Your task to perform on an android device: turn on airplane mode Image 0: 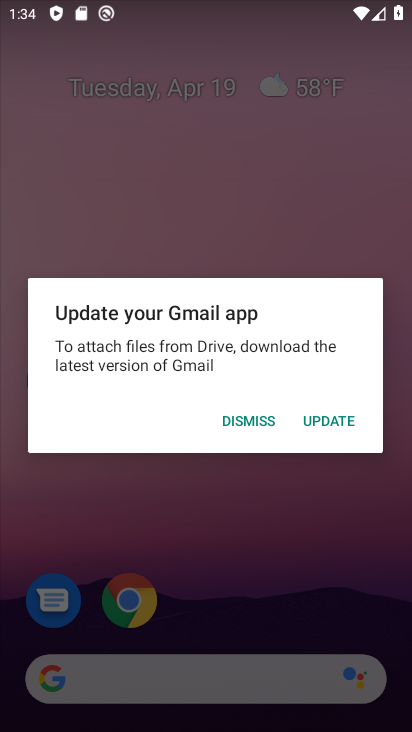
Step 0: press back button
Your task to perform on an android device: turn on airplane mode Image 1: 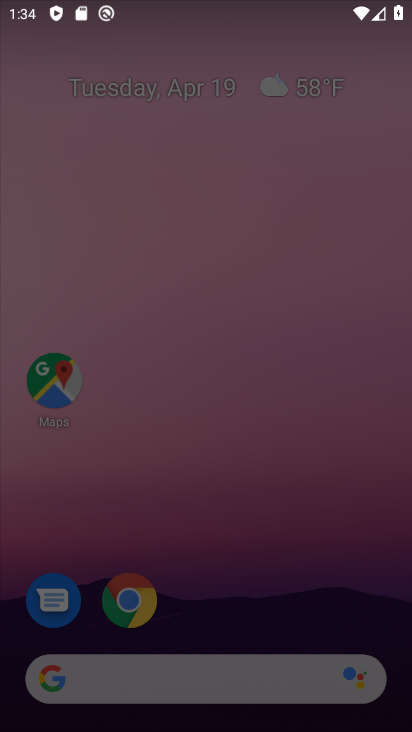
Step 1: press back button
Your task to perform on an android device: turn on airplane mode Image 2: 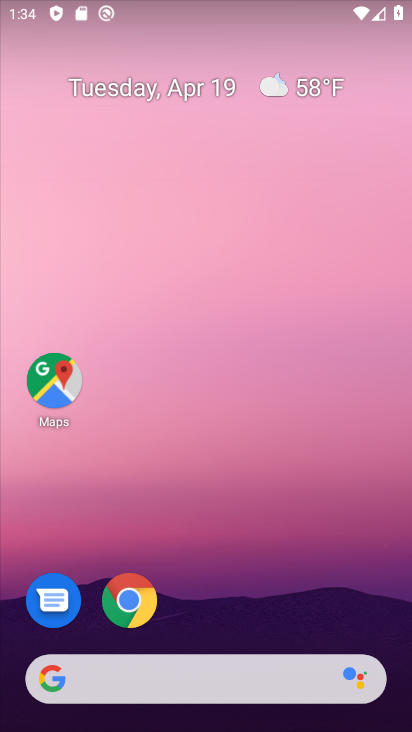
Step 2: drag from (265, 668) to (301, 138)
Your task to perform on an android device: turn on airplane mode Image 3: 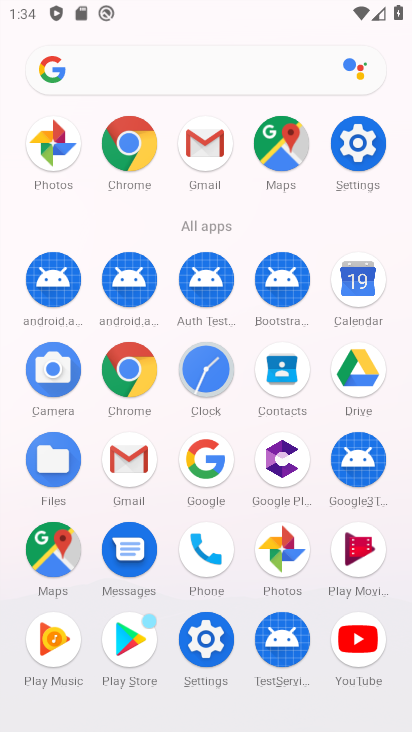
Step 3: click (364, 143)
Your task to perform on an android device: turn on airplane mode Image 4: 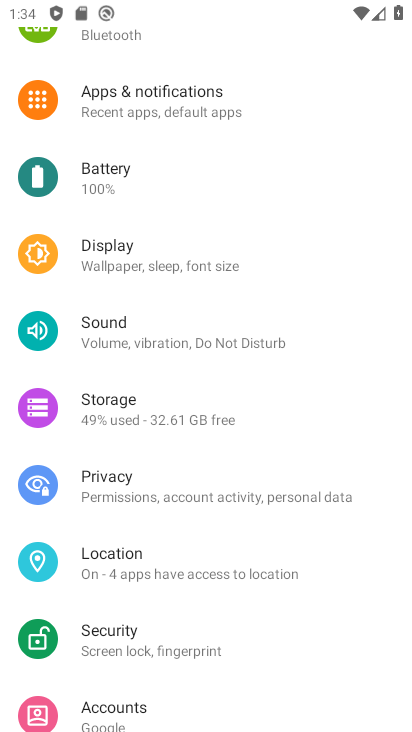
Step 4: drag from (195, 127) to (191, 433)
Your task to perform on an android device: turn on airplane mode Image 5: 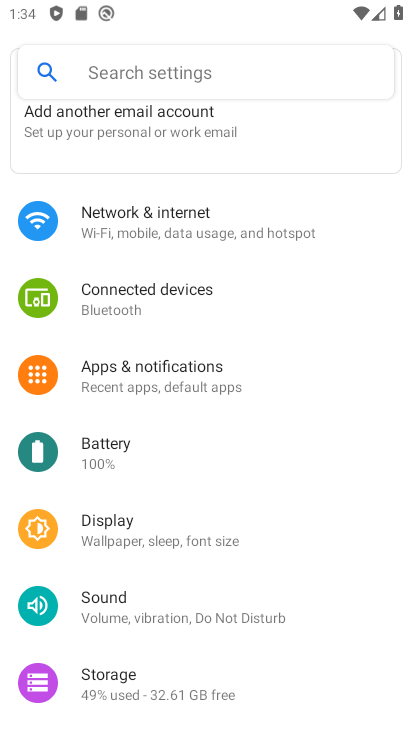
Step 5: click (189, 216)
Your task to perform on an android device: turn on airplane mode Image 6: 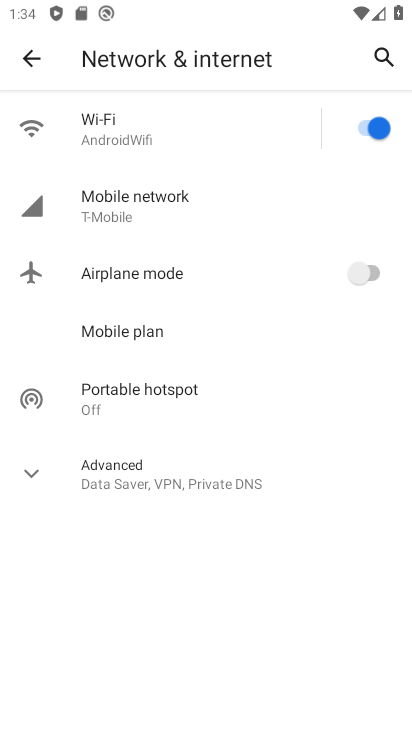
Step 6: click (364, 265)
Your task to perform on an android device: turn on airplane mode Image 7: 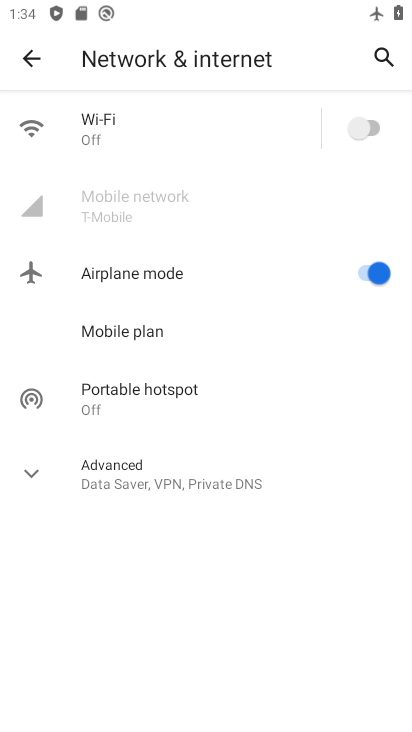
Step 7: task complete